Your task to perform on an android device: Open the calendar app, open the side menu, and click the "Day" option Image 0: 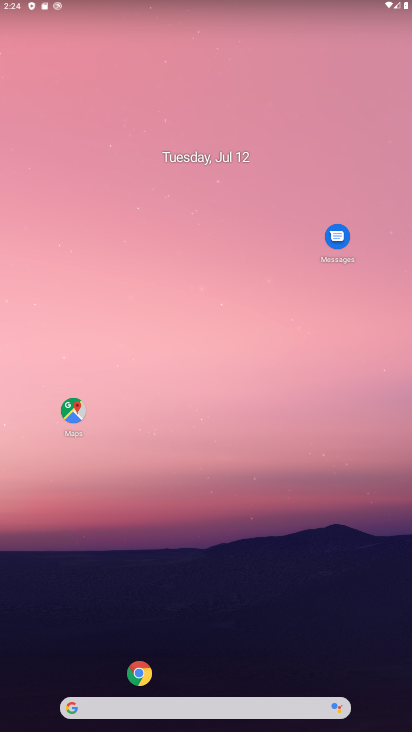
Step 0: click (138, 675)
Your task to perform on an android device: Open the calendar app, open the side menu, and click the "Day" option Image 1: 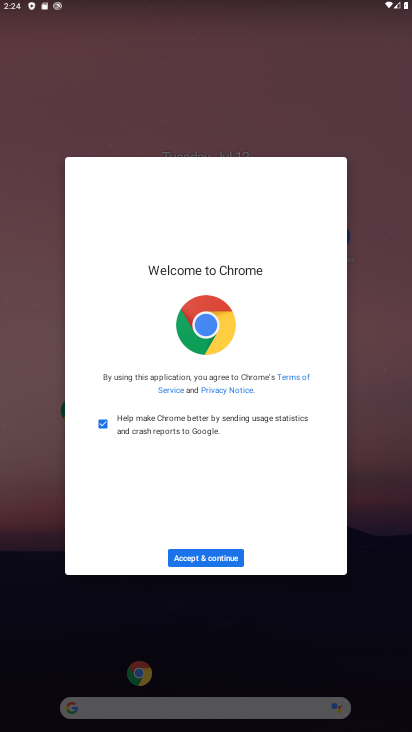
Step 1: click (211, 557)
Your task to perform on an android device: Open the calendar app, open the side menu, and click the "Day" option Image 2: 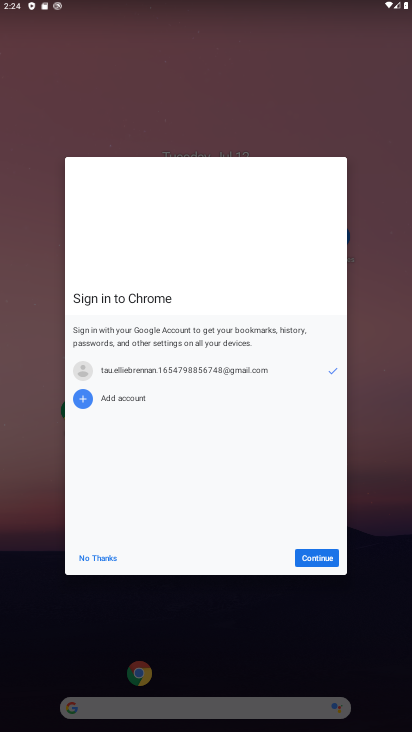
Step 2: press home button
Your task to perform on an android device: Open the calendar app, open the side menu, and click the "Day" option Image 3: 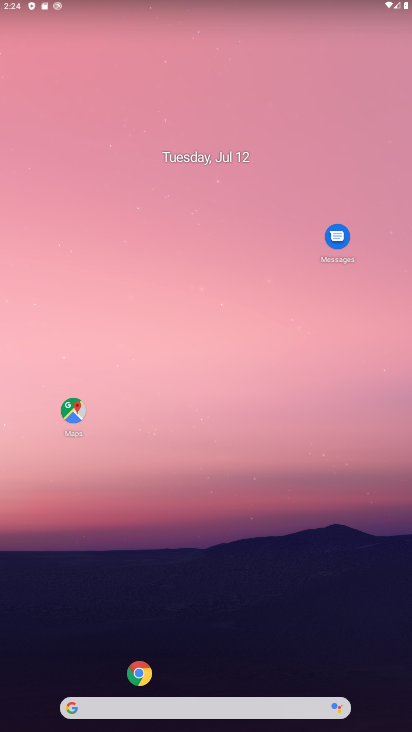
Step 3: drag from (28, 693) to (211, 98)
Your task to perform on an android device: Open the calendar app, open the side menu, and click the "Day" option Image 4: 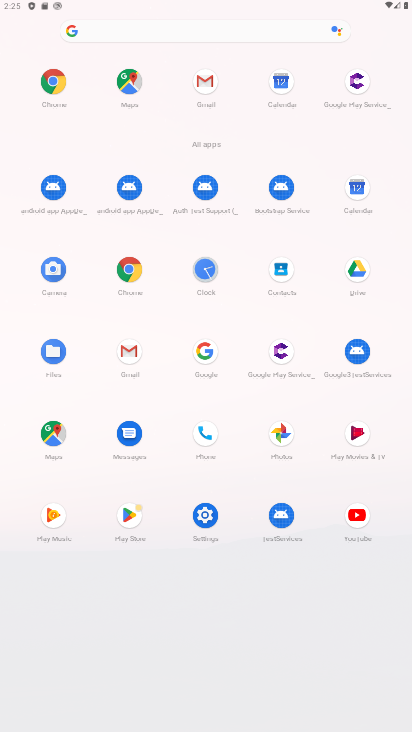
Step 4: click (357, 194)
Your task to perform on an android device: Open the calendar app, open the side menu, and click the "Day" option Image 5: 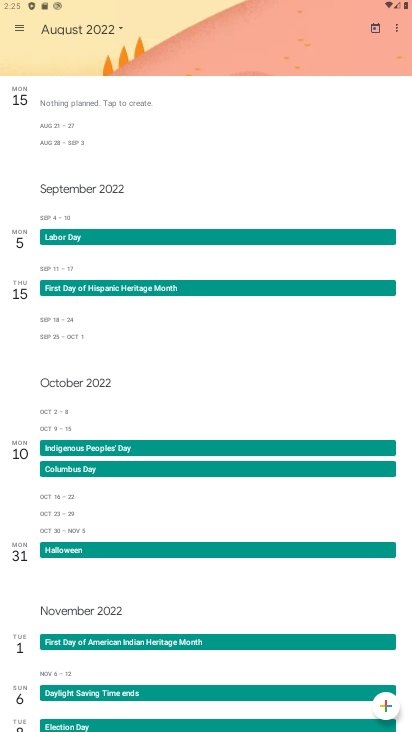
Step 5: drag from (73, 18) to (79, 357)
Your task to perform on an android device: Open the calendar app, open the side menu, and click the "Day" option Image 6: 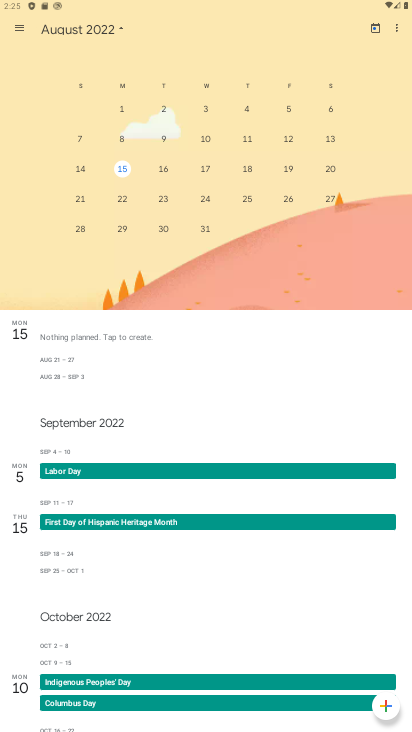
Step 6: drag from (62, 124) to (410, 172)
Your task to perform on an android device: Open the calendar app, open the side menu, and click the "Day" option Image 7: 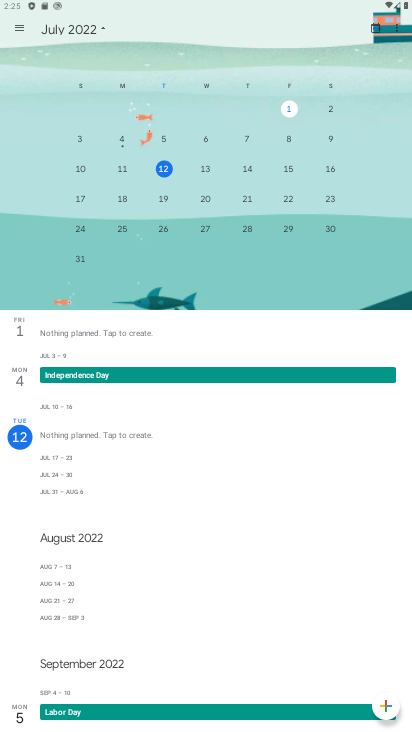
Step 7: click (24, 30)
Your task to perform on an android device: Open the calendar app, open the side menu, and click the "Day" option Image 8: 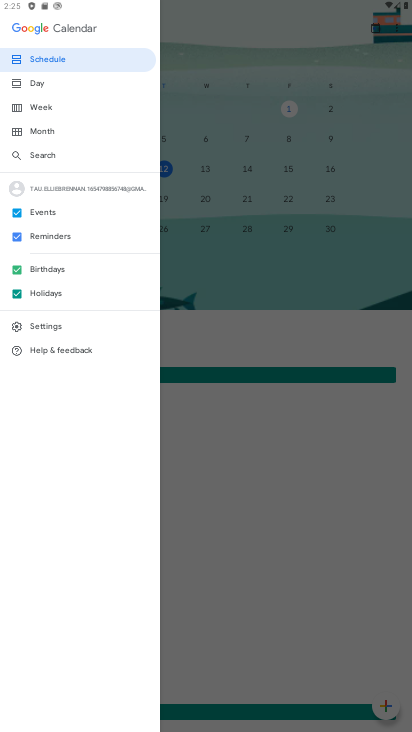
Step 8: click (44, 82)
Your task to perform on an android device: Open the calendar app, open the side menu, and click the "Day" option Image 9: 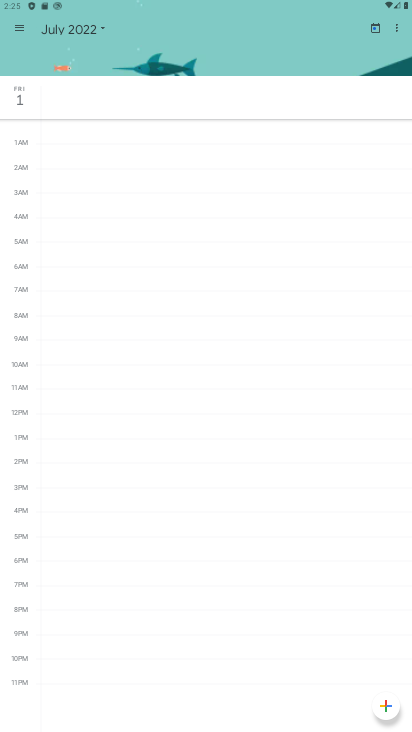
Step 9: task complete